Your task to perform on an android device: Open Wikipedia Image 0: 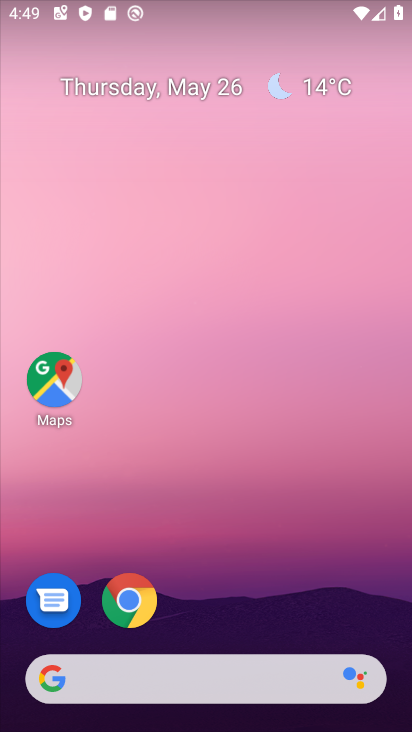
Step 0: click (127, 601)
Your task to perform on an android device: Open Wikipedia Image 1: 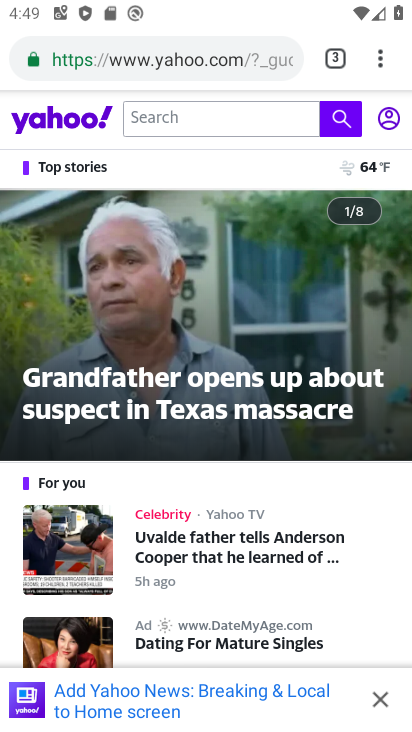
Step 1: click (341, 64)
Your task to perform on an android device: Open Wikipedia Image 2: 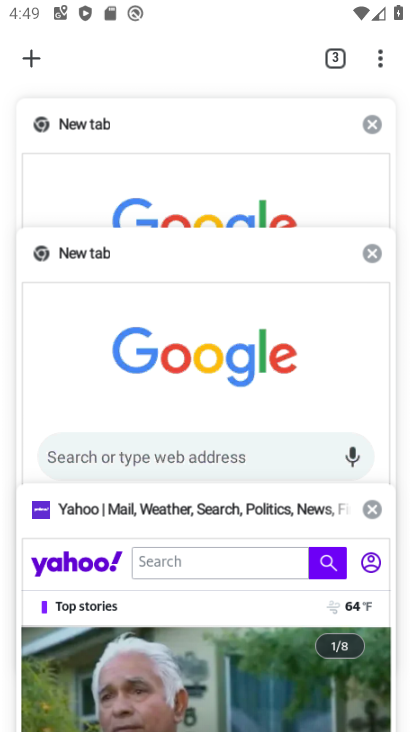
Step 2: click (31, 59)
Your task to perform on an android device: Open Wikipedia Image 3: 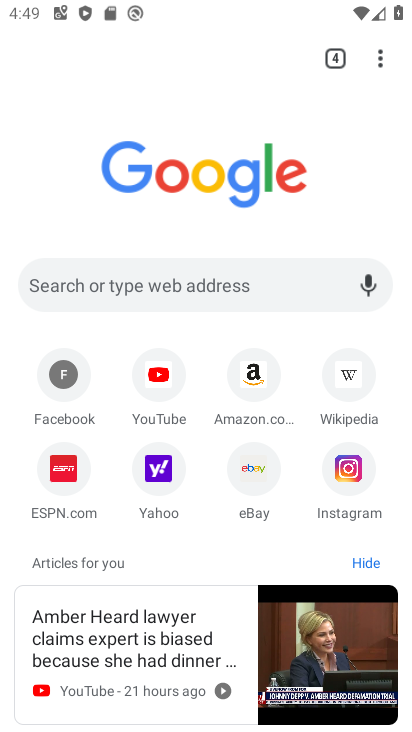
Step 3: click (345, 381)
Your task to perform on an android device: Open Wikipedia Image 4: 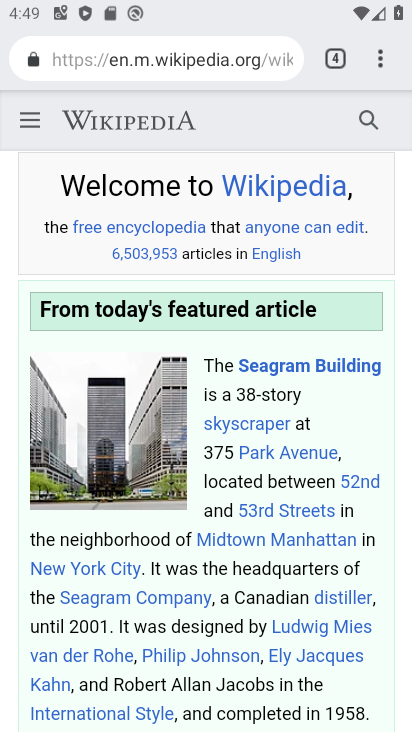
Step 4: task complete